Your task to perform on an android device: Open calendar and show me the second week of next month Image 0: 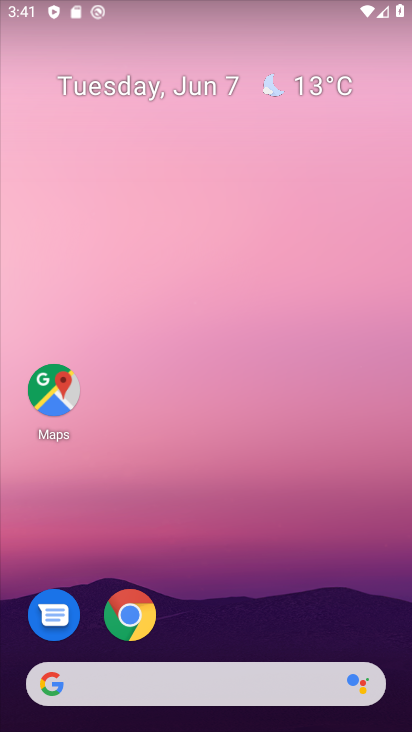
Step 0: drag from (201, 624) to (288, 319)
Your task to perform on an android device: Open calendar and show me the second week of next month Image 1: 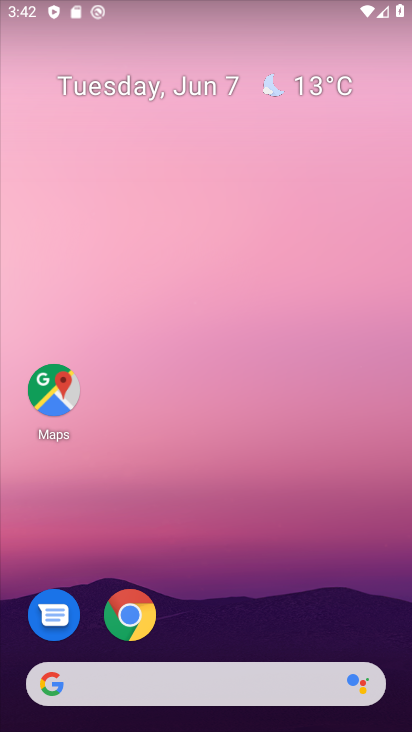
Step 1: drag from (192, 639) to (357, 47)
Your task to perform on an android device: Open calendar and show me the second week of next month Image 2: 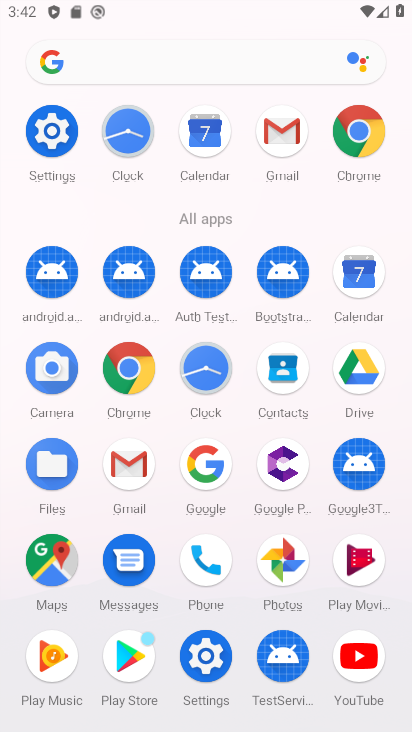
Step 2: click (360, 305)
Your task to perform on an android device: Open calendar and show me the second week of next month Image 3: 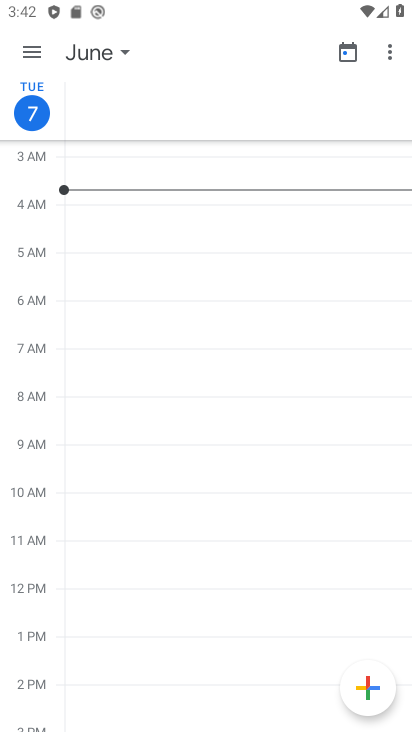
Step 3: click (15, 50)
Your task to perform on an android device: Open calendar and show me the second week of next month Image 4: 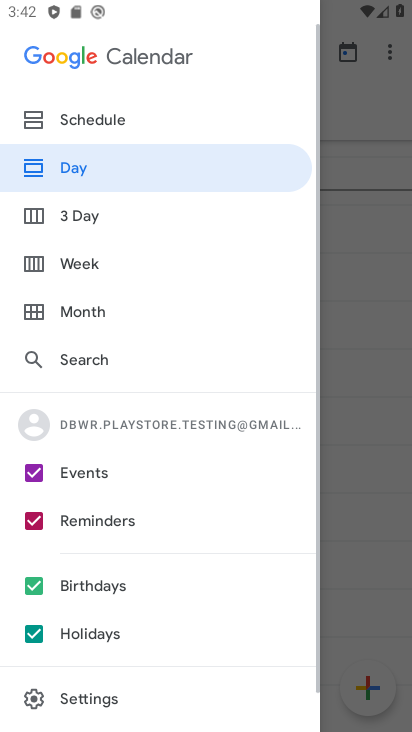
Step 4: click (80, 264)
Your task to perform on an android device: Open calendar and show me the second week of next month Image 5: 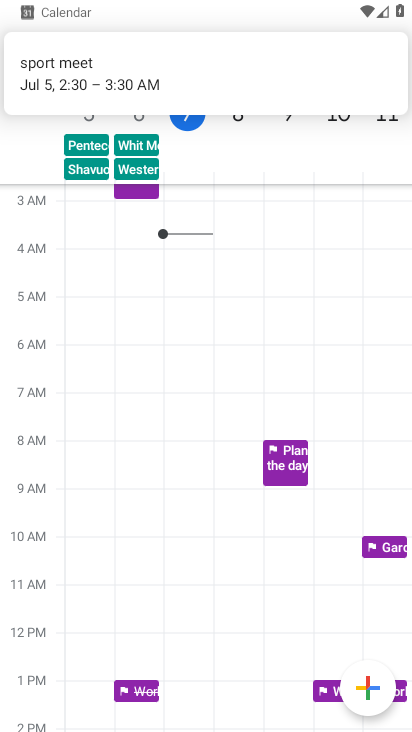
Step 5: task complete